Your task to perform on an android device: clear all cookies in the chrome app Image 0: 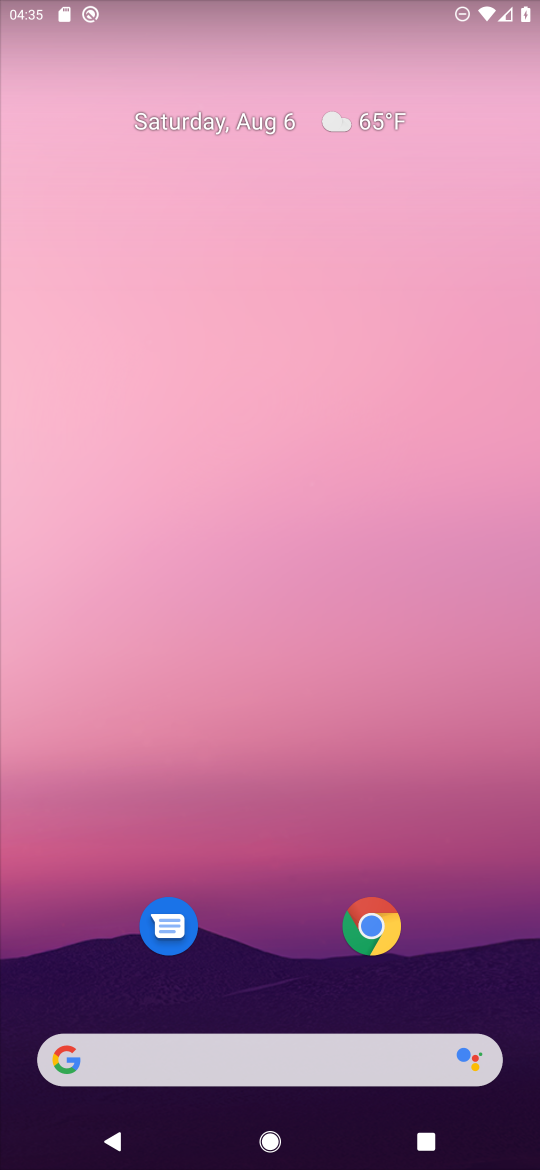
Step 0: click (381, 923)
Your task to perform on an android device: clear all cookies in the chrome app Image 1: 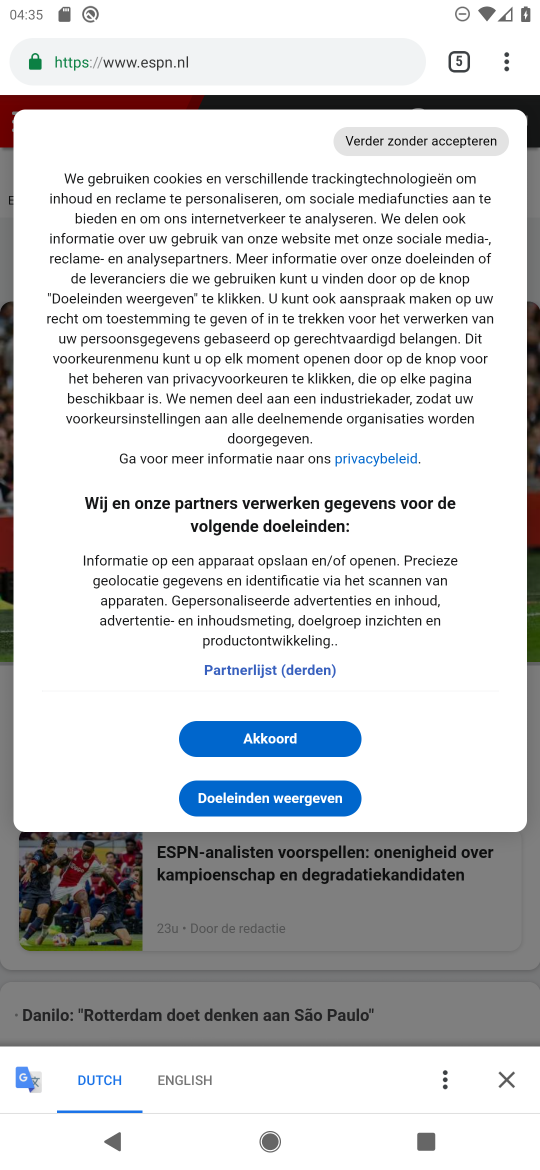
Step 1: click (504, 56)
Your task to perform on an android device: clear all cookies in the chrome app Image 2: 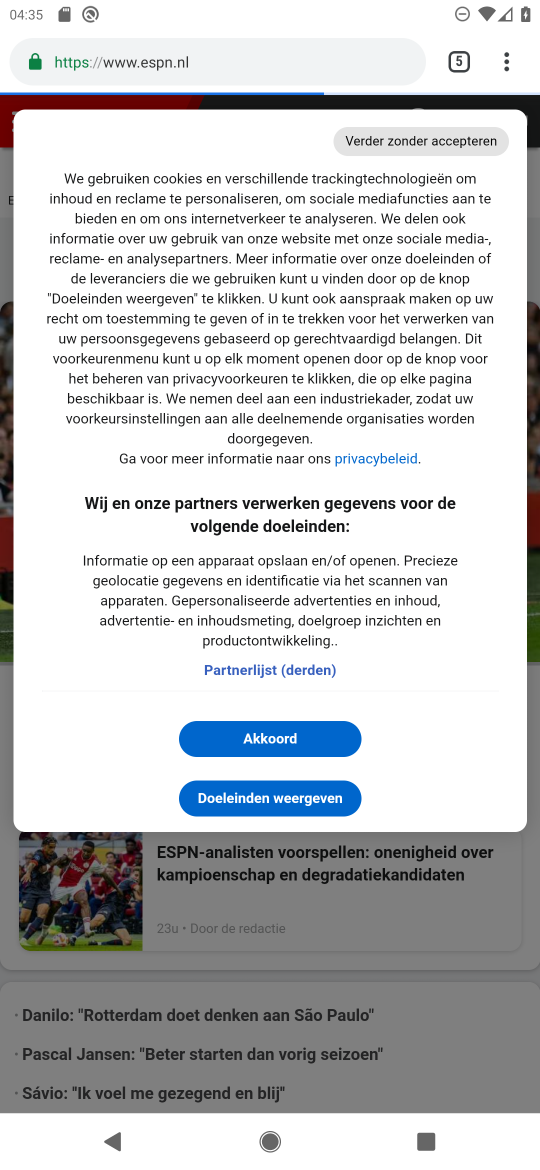
Step 2: drag from (509, 59) to (323, 346)
Your task to perform on an android device: clear all cookies in the chrome app Image 3: 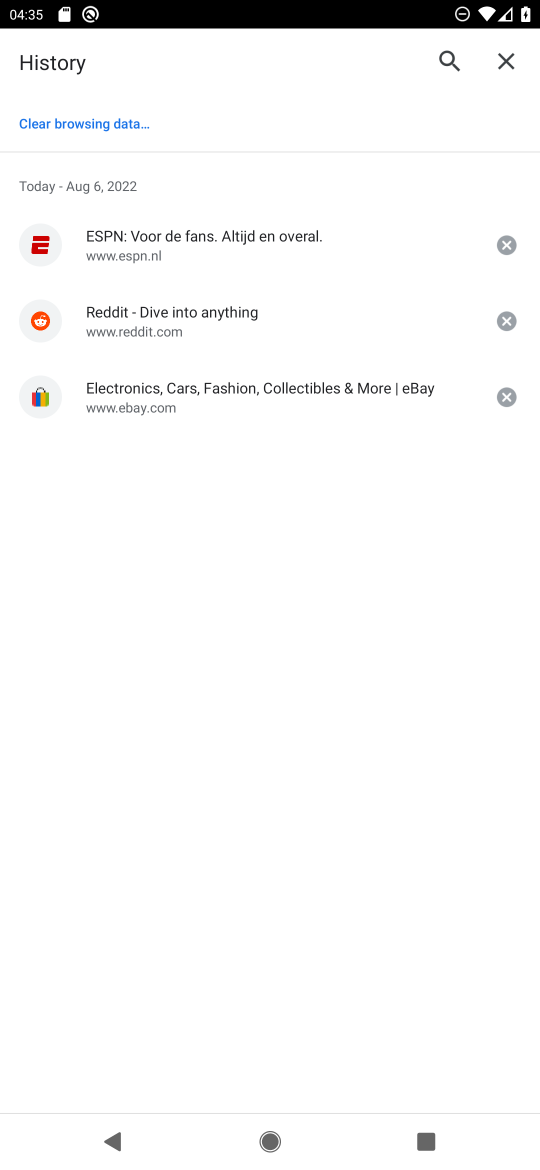
Step 3: click (104, 116)
Your task to perform on an android device: clear all cookies in the chrome app Image 4: 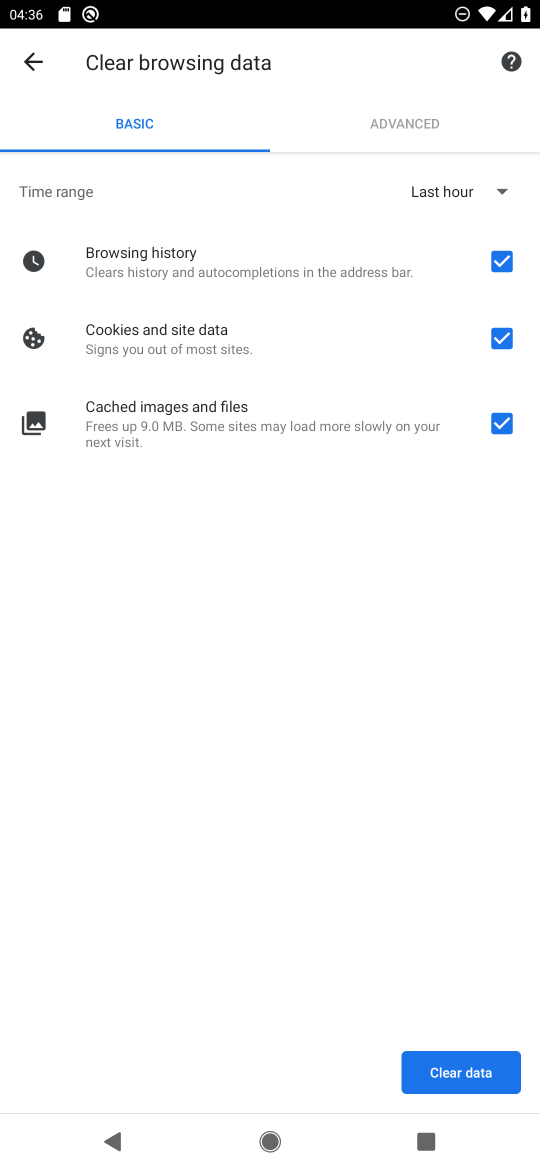
Step 4: click (455, 1075)
Your task to perform on an android device: clear all cookies in the chrome app Image 5: 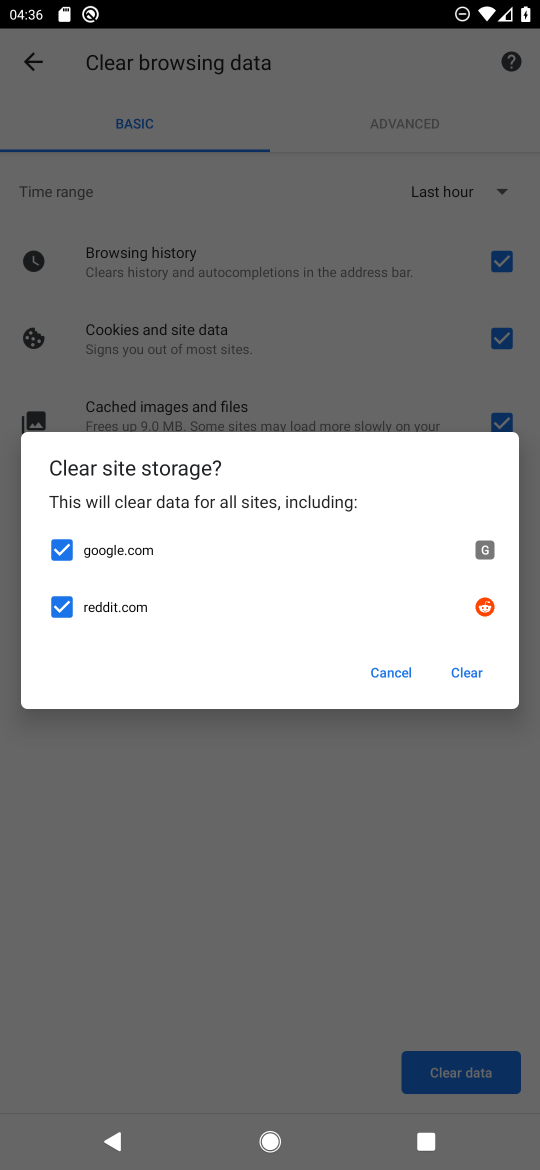
Step 5: click (483, 670)
Your task to perform on an android device: clear all cookies in the chrome app Image 6: 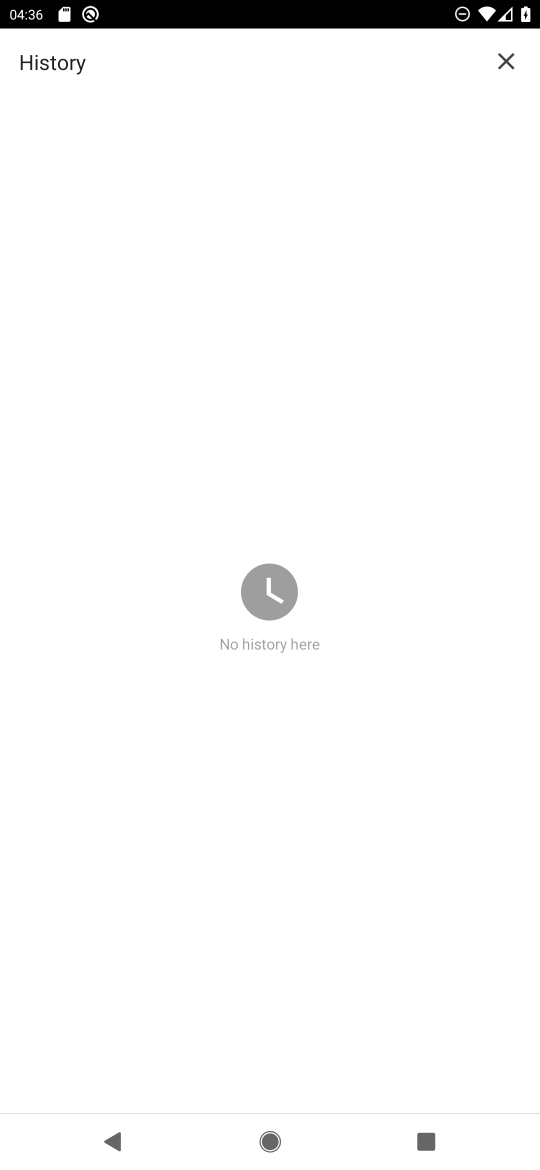
Step 6: task complete